Your task to perform on an android device: Go to CNN.com Image 0: 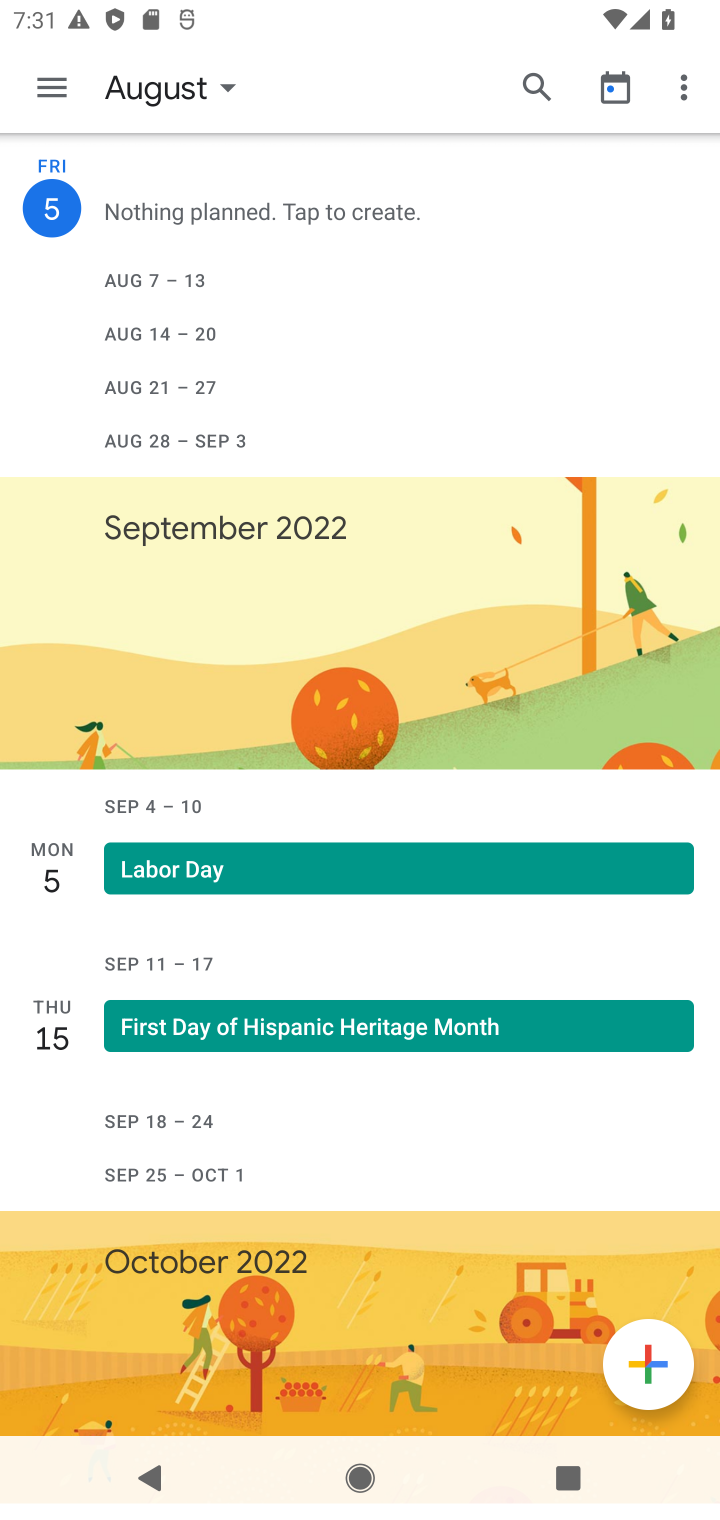
Step 0: press home button
Your task to perform on an android device: Go to CNN.com Image 1: 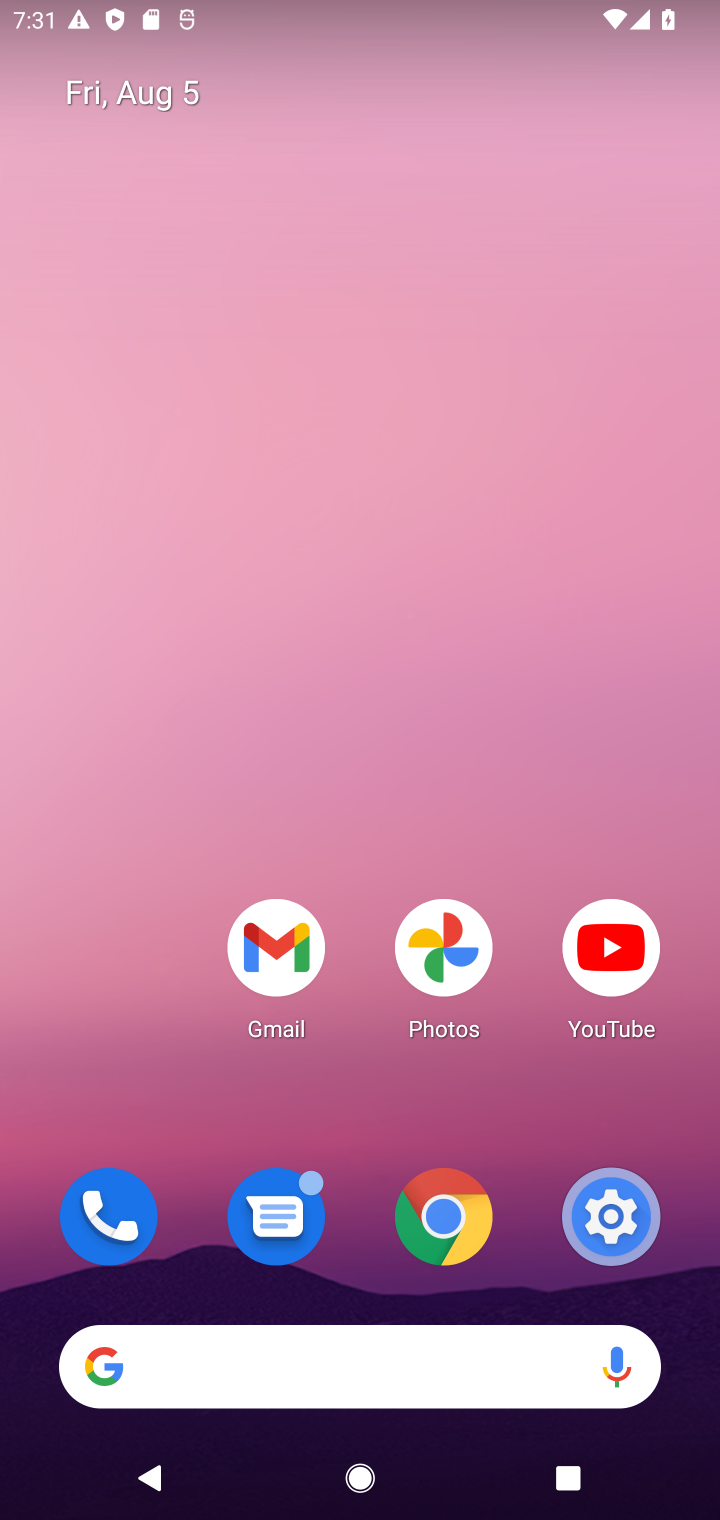
Step 1: click (456, 1216)
Your task to perform on an android device: Go to CNN.com Image 2: 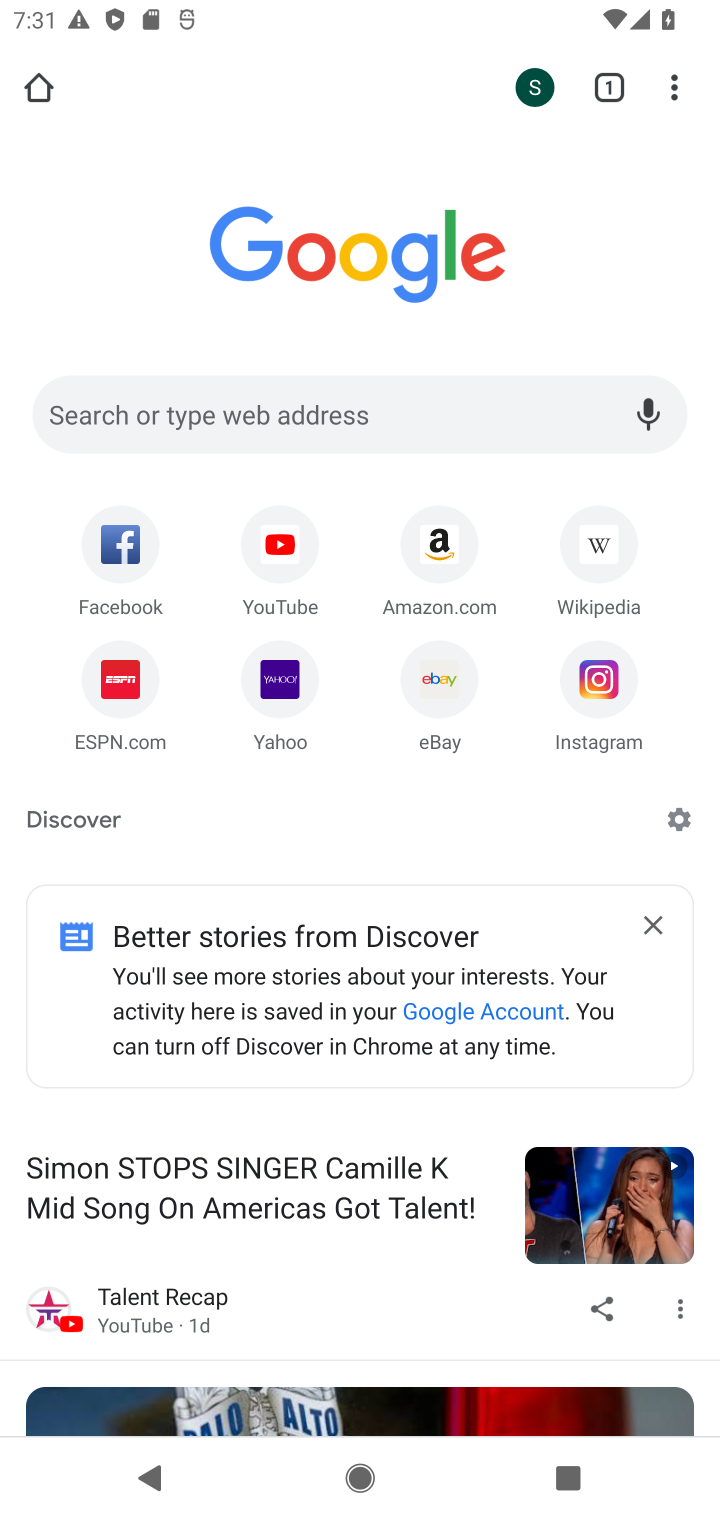
Step 2: click (450, 433)
Your task to perform on an android device: Go to CNN.com Image 3: 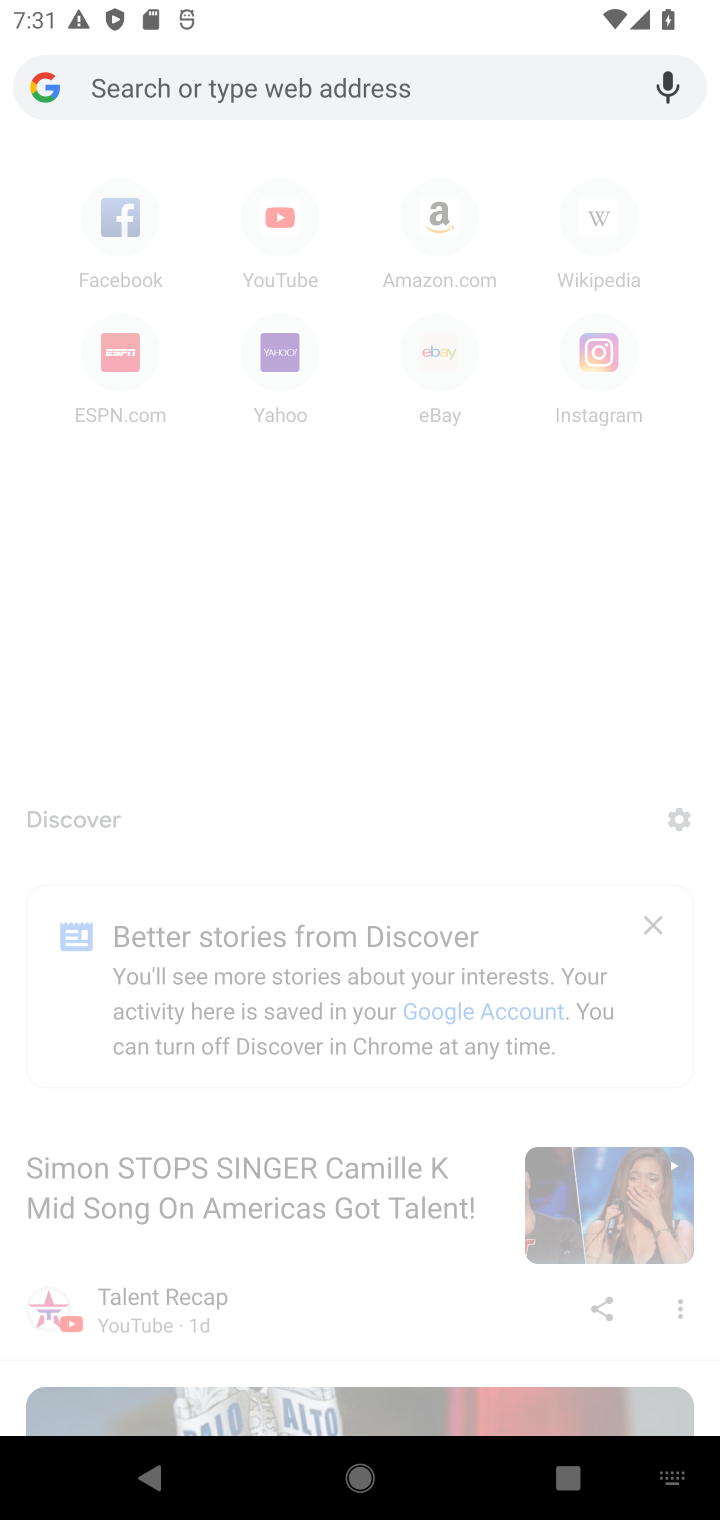
Step 3: type "CNN.com"
Your task to perform on an android device: Go to CNN.com Image 4: 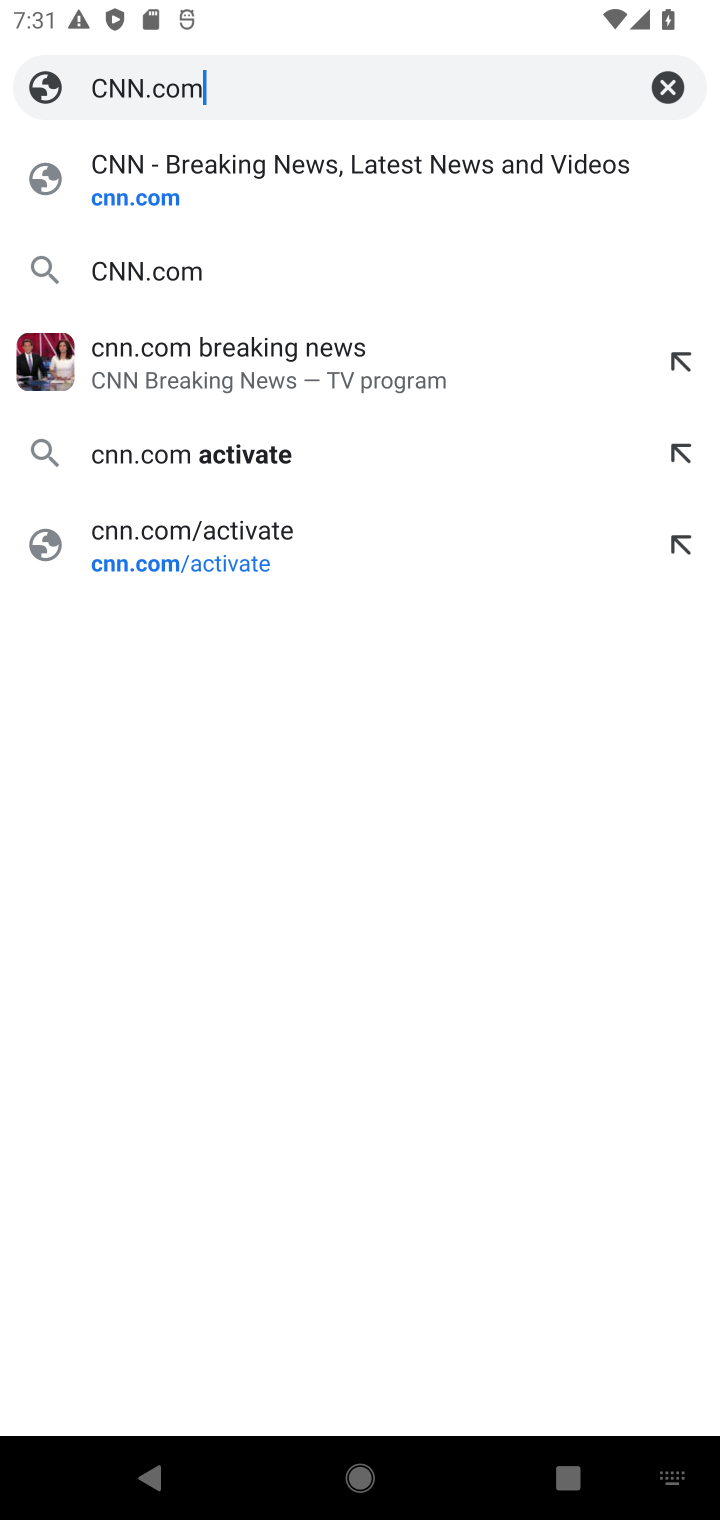
Step 4: click (165, 181)
Your task to perform on an android device: Go to CNN.com Image 5: 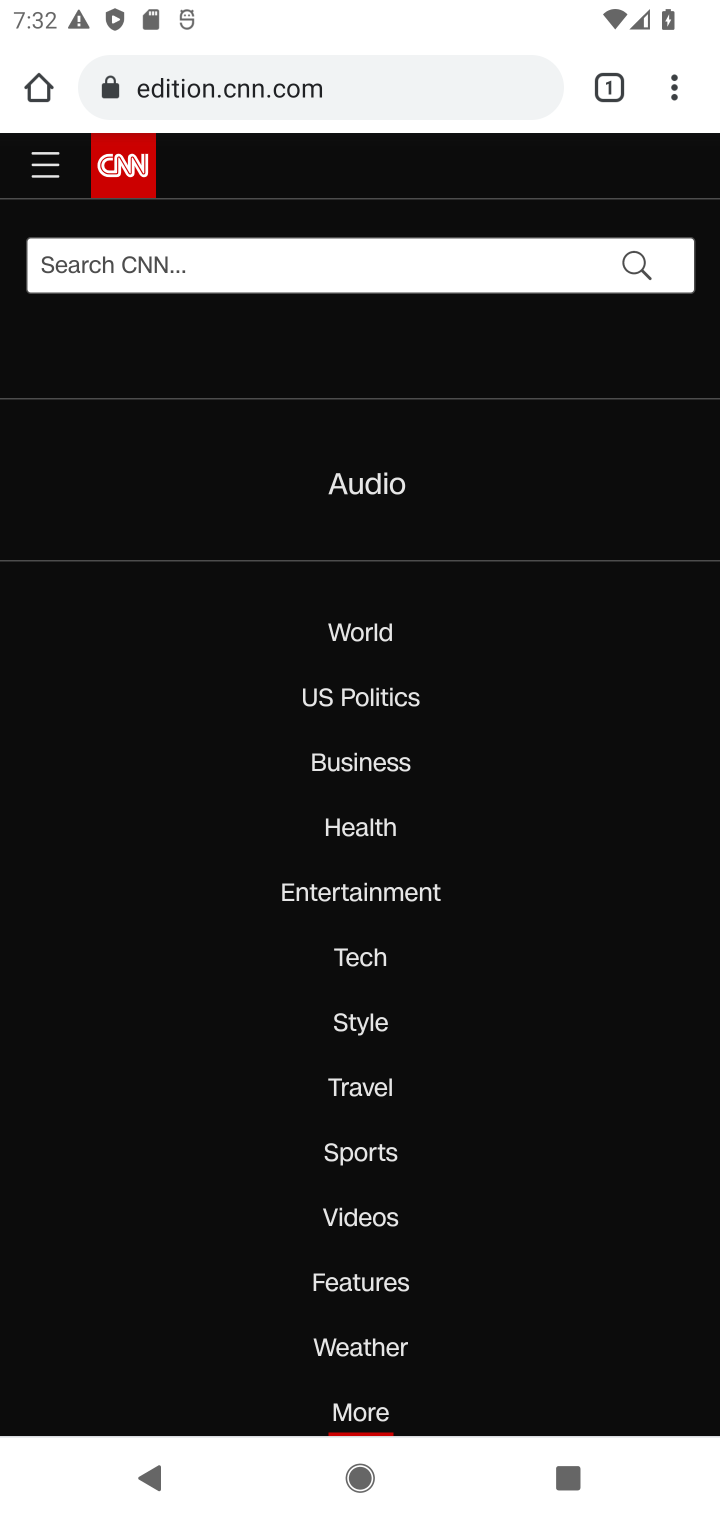
Step 5: task complete